Your task to perform on an android device: empty trash in the gmail app Image 0: 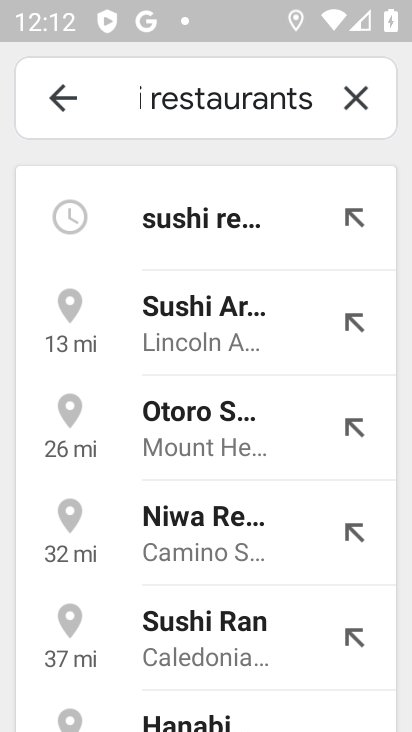
Step 0: press home button
Your task to perform on an android device: empty trash in the gmail app Image 1: 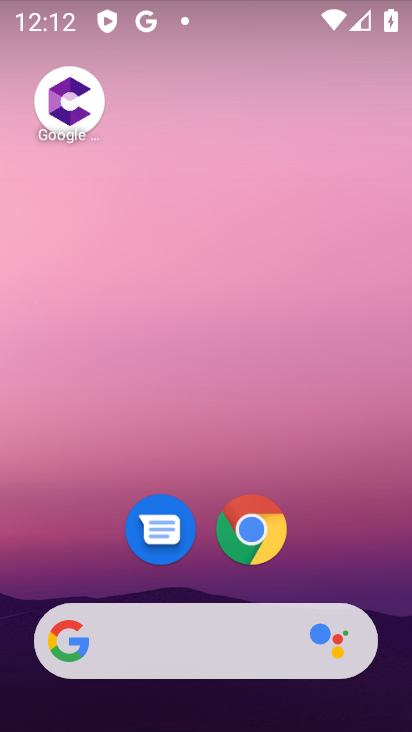
Step 1: drag from (189, 723) to (200, 104)
Your task to perform on an android device: empty trash in the gmail app Image 2: 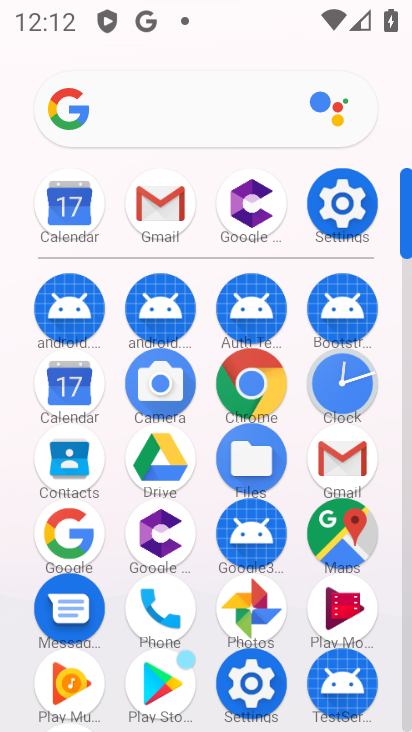
Step 2: click (338, 460)
Your task to perform on an android device: empty trash in the gmail app Image 3: 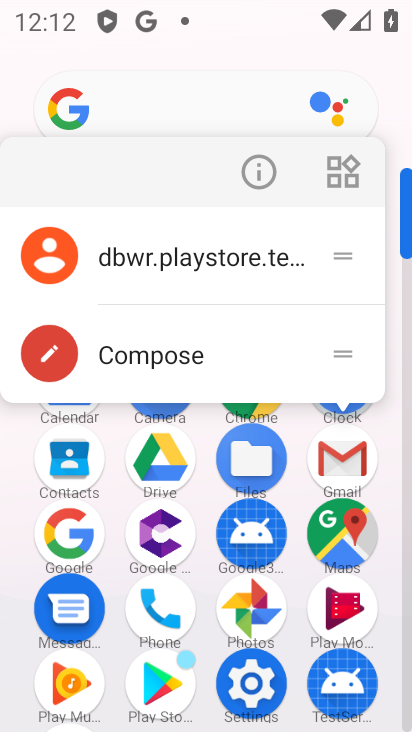
Step 3: click (341, 457)
Your task to perform on an android device: empty trash in the gmail app Image 4: 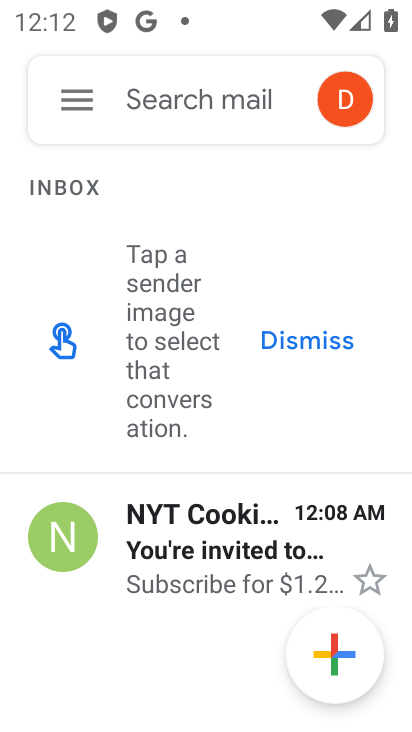
Step 4: click (76, 109)
Your task to perform on an android device: empty trash in the gmail app Image 5: 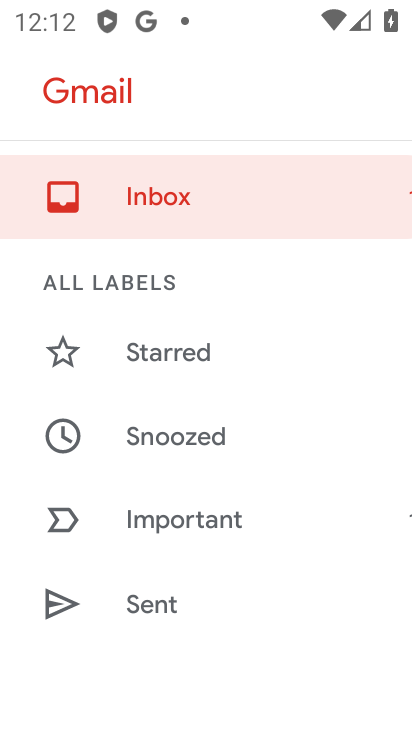
Step 5: drag from (138, 548) to (147, 183)
Your task to perform on an android device: empty trash in the gmail app Image 6: 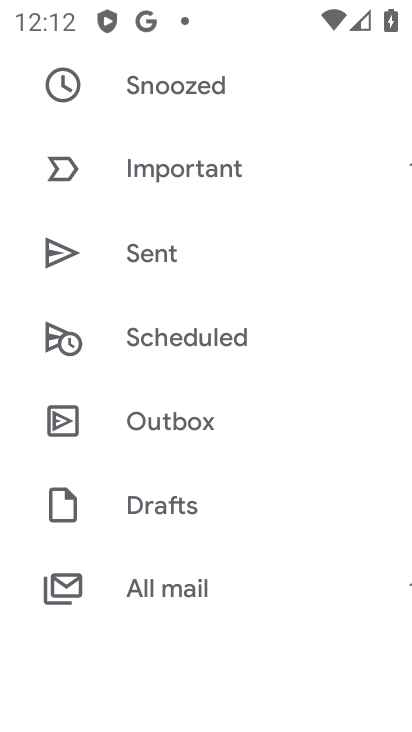
Step 6: drag from (152, 548) to (157, 178)
Your task to perform on an android device: empty trash in the gmail app Image 7: 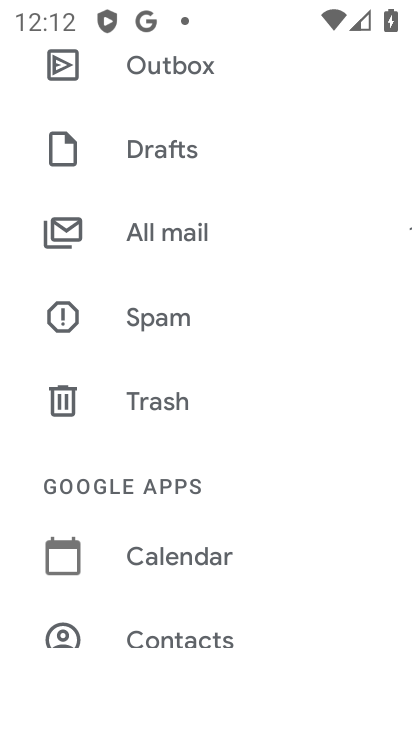
Step 7: click (150, 402)
Your task to perform on an android device: empty trash in the gmail app Image 8: 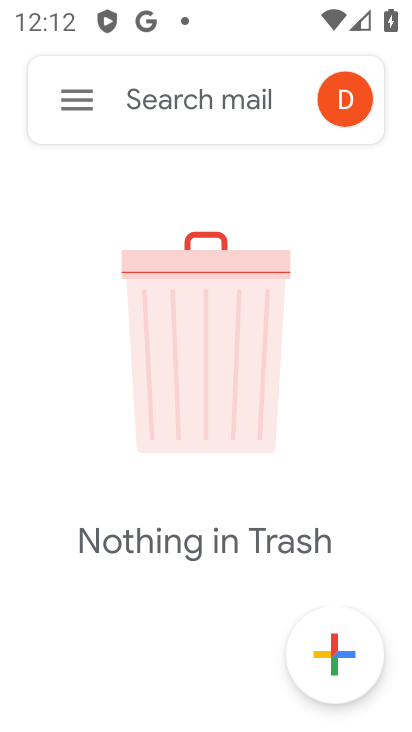
Step 8: task complete